Your task to perform on an android device: Open ESPN.com Image 0: 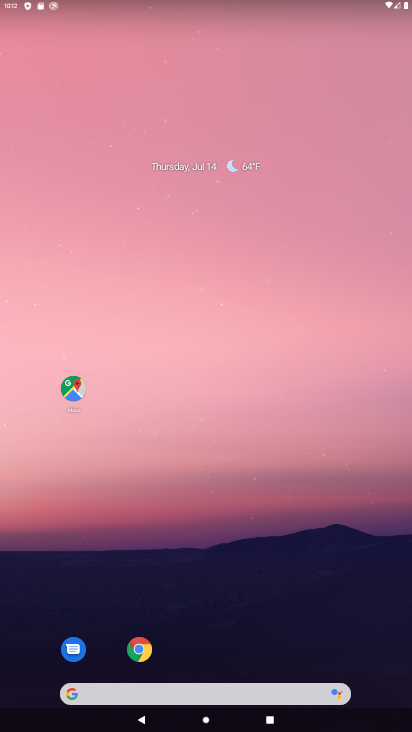
Step 0: drag from (192, 658) to (227, 63)
Your task to perform on an android device: Open ESPN.com Image 1: 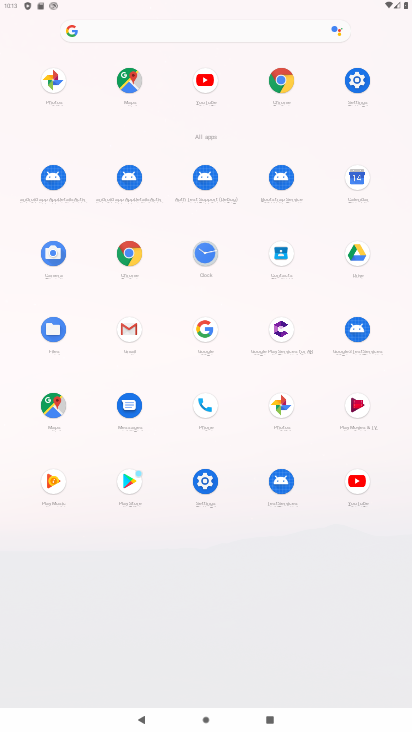
Step 1: click (129, 253)
Your task to perform on an android device: Open ESPN.com Image 2: 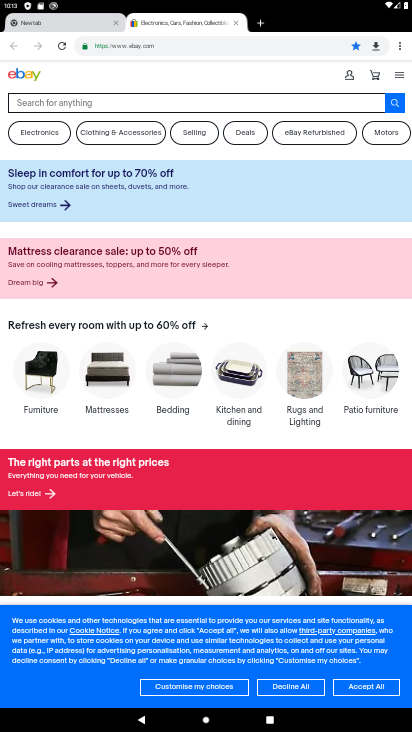
Step 2: click (162, 39)
Your task to perform on an android device: Open ESPN.com Image 3: 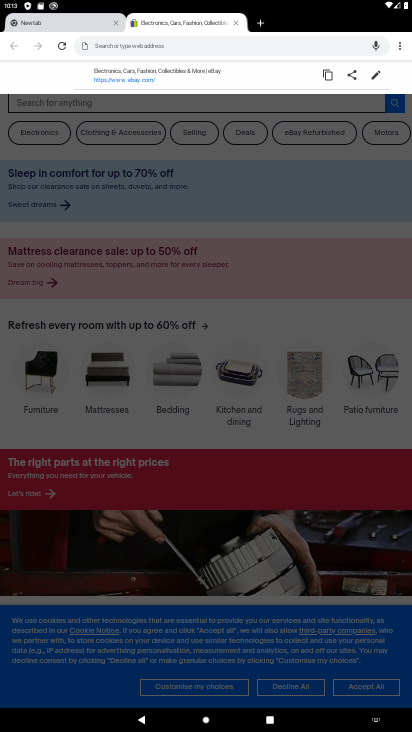
Step 3: type "ESPN.com"
Your task to perform on an android device: Open ESPN.com Image 4: 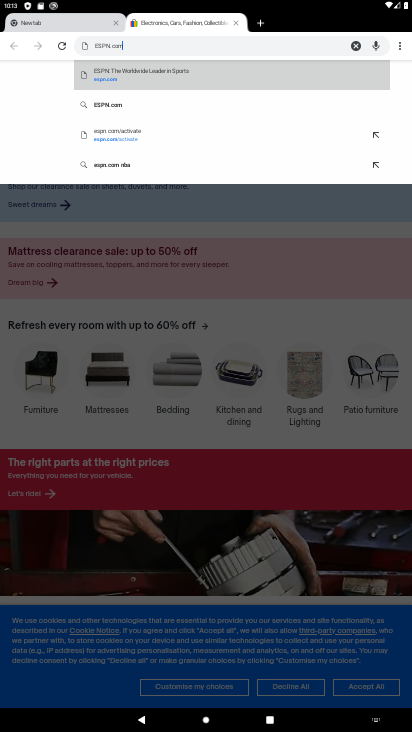
Step 4: click (104, 75)
Your task to perform on an android device: Open ESPN.com Image 5: 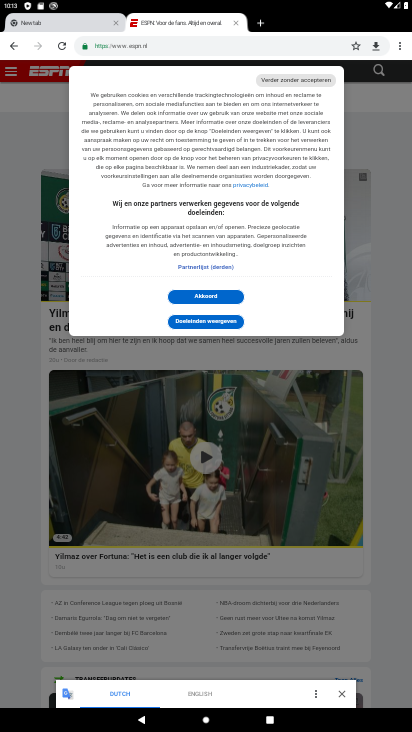
Step 5: task complete